Your task to perform on an android device: Open Youtube and go to the subscriptions tab Image 0: 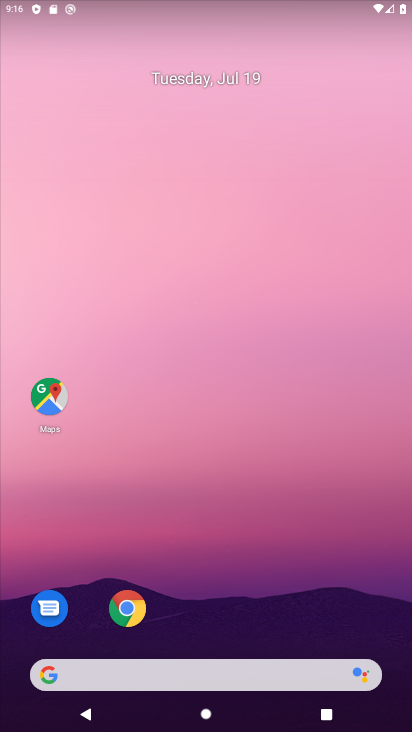
Step 0: drag from (138, 364) to (101, 66)
Your task to perform on an android device: Open Youtube and go to the subscriptions tab Image 1: 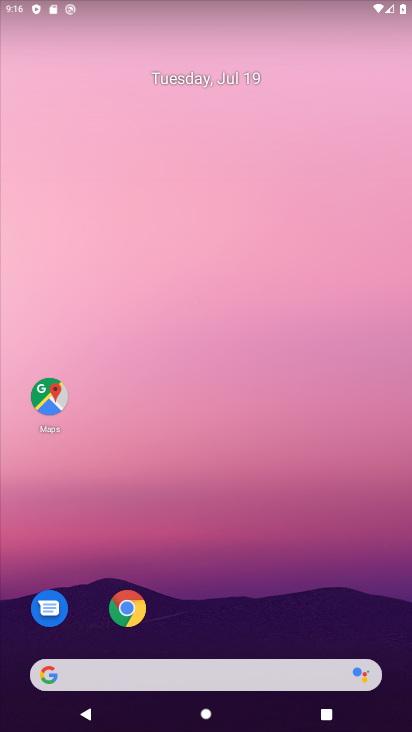
Step 1: drag from (200, 606) to (198, 64)
Your task to perform on an android device: Open Youtube and go to the subscriptions tab Image 2: 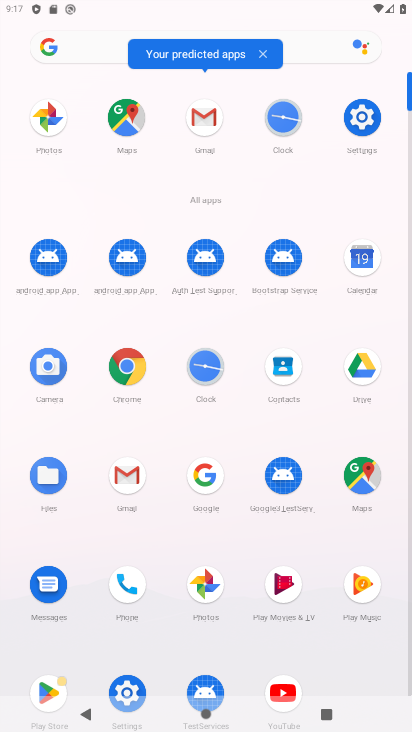
Step 2: click (284, 686)
Your task to perform on an android device: Open Youtube and go to the subscriptions tab Image 3: 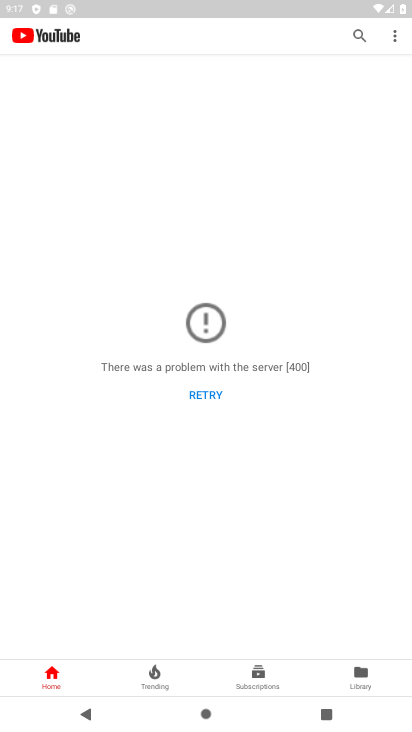
Step 3: click (250, 677)
Your task to perform on an android device: Open Youtube and go to the subscriptions tab Image 4: 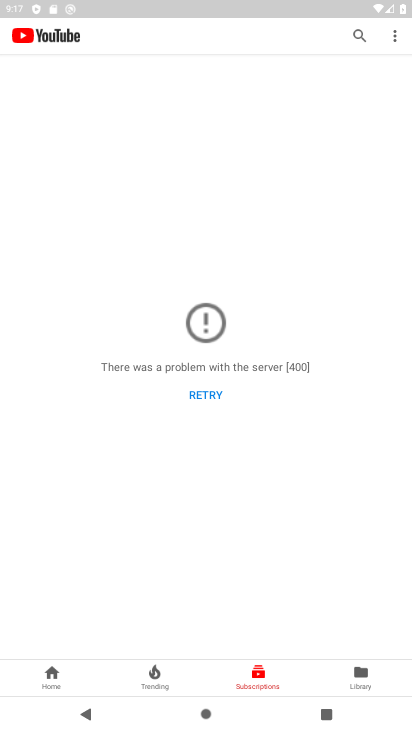
Step 4: task complete